Your task to perform on an android device: set an alarm Image 0: 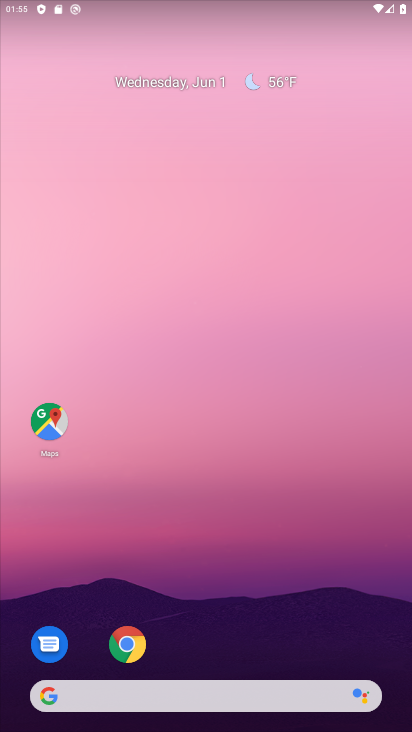
Step 0: drag from (180, 594) to (190, 360)
Your task to perform on an android device: set an alarm Image 1: 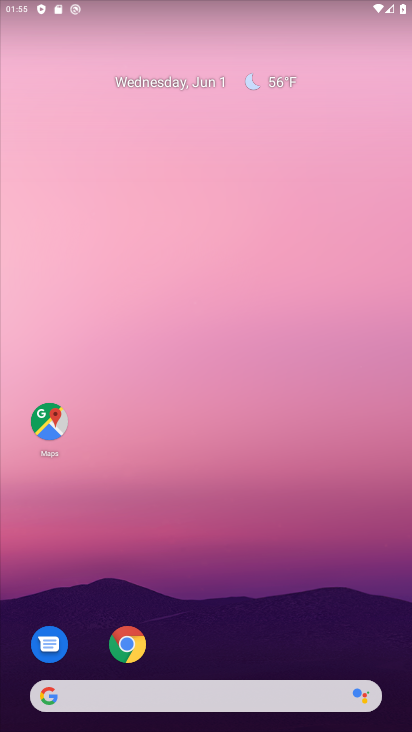
Step 1: drag from (204, 676) to (204, 292)
Your task to perform on an android device: set an alarm Image 2: 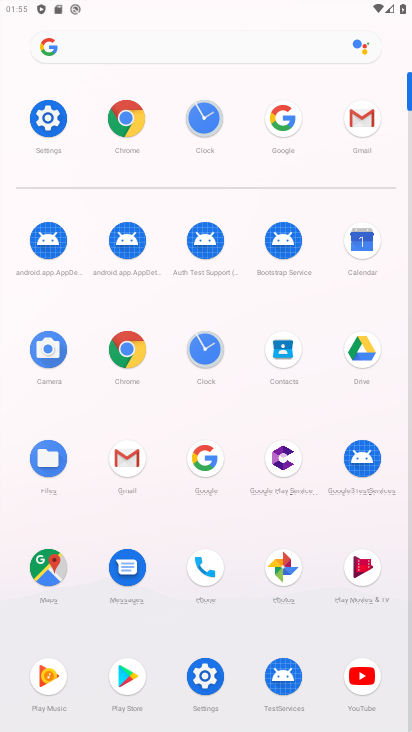
Step 2: click (209, 345)
Your task to perform on an android device: set an alarm Image 3: 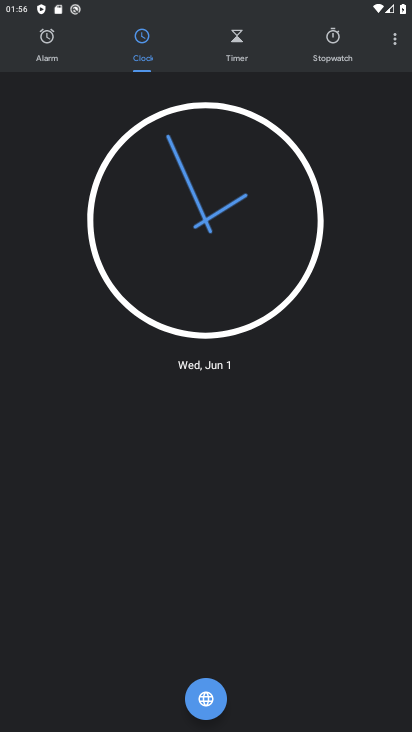
Step 3: click (52, 53)
Your task to perform on an android device: set an alarm Image 4: 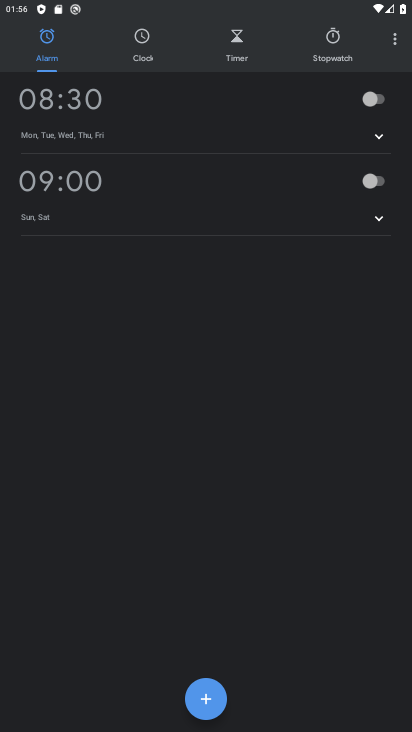
Step 4: click (204, 701)
Your task to perform on an android device: set an alarm Image 5: 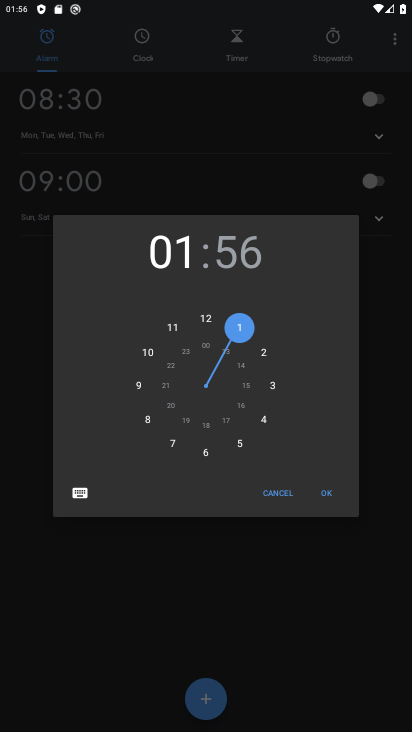
Step 5: click (149, 352)
Your task to perform on an android device: set an alarm Image 6: 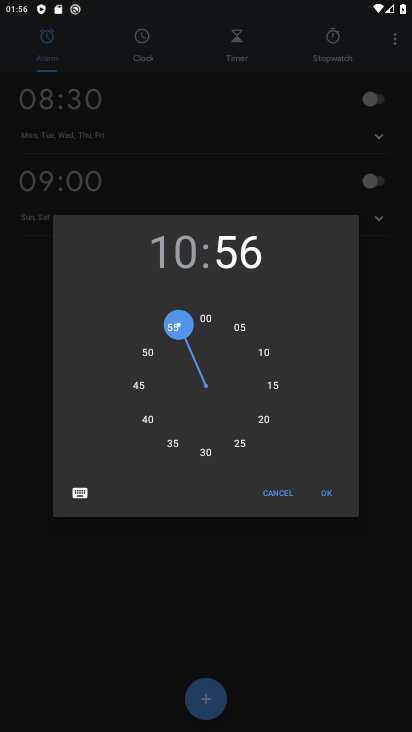
Step 6: click (207, 317)
Your task to perform on an android device: set an alarm Image 7: 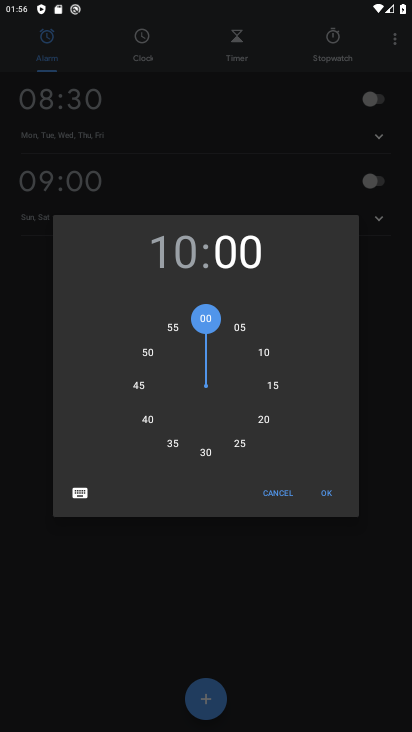
Step 7: click (331, 495)
Your task to perform on an android device: set an alarm Image 8: 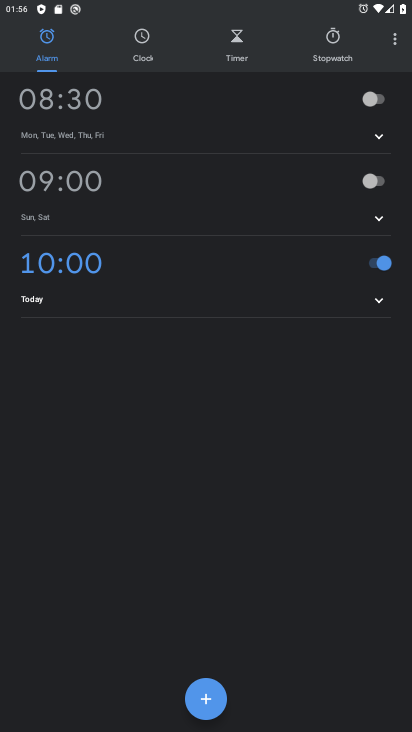
Step 8: task complete